Your task to perform on an android device: delete browsing data in the chrome app Image 0: 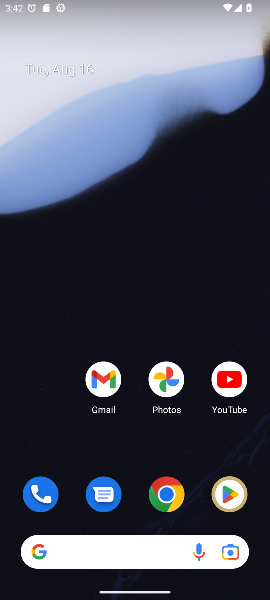
Step 0: click (170, 490)
Your task to perform on an android device: delete browsing data in the chrome app Image 1: 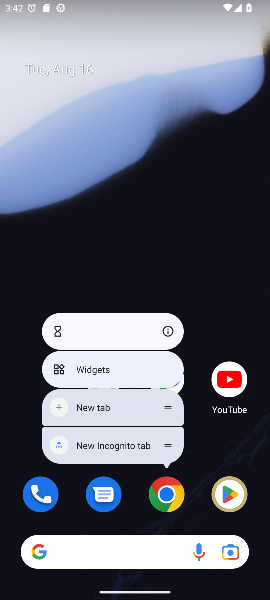
Step 1: click (171, 486)
Your task to perform on an android device: delete browsing data in the chrome app Image 2: 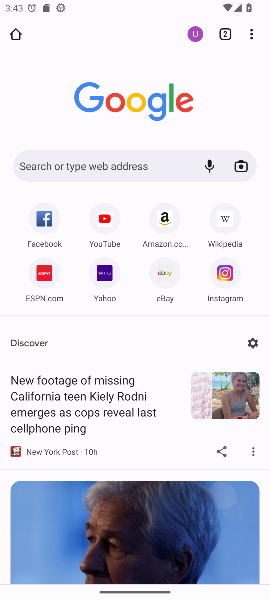
Step 2: click (250, 35)
Your task to perform on an android device: delete browsing data in the chrome app Image 3: 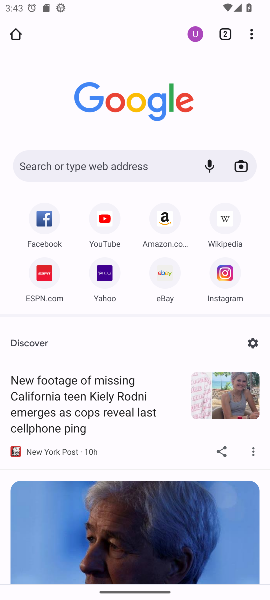
Step 3: drag from (254, 38) to (146, 136)
Your task to perform on an android device: delete browsing data in the chrome app Image 4: 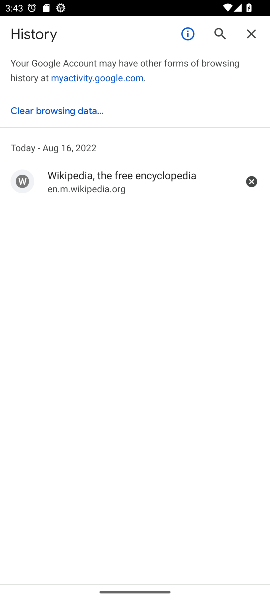
Step 4: click (52, 108)
Your task to perform on an android device: delete browsing data in the chrome app Image 5: 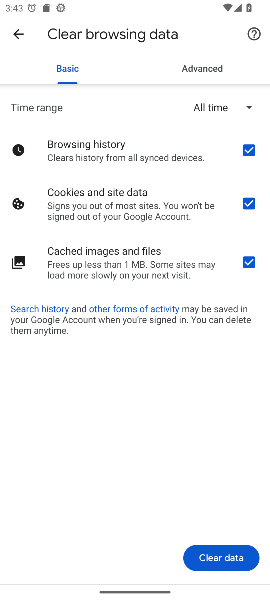
Step 5: click (205, 558)
Your task to perform on an android device: delete browsing data in the chrome app Image 6: 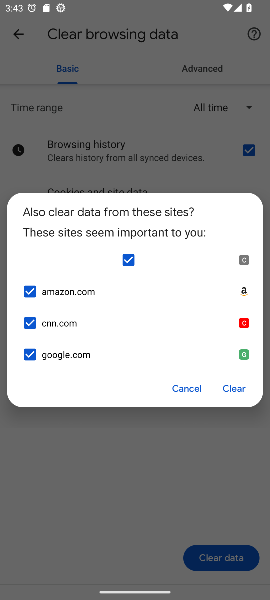
Step 6: click (235, 384)
Your task to perform on an android device: delete browsing data in the chrome app Image 7: 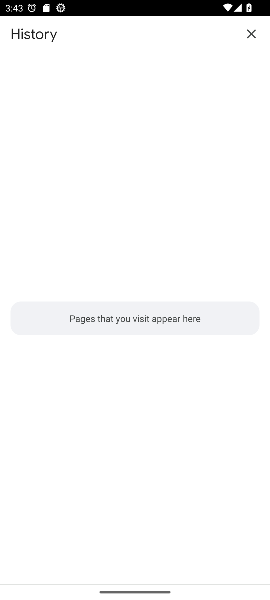
Step 7: task complete